Your task to perform on an android device: turn on data saver in the chrome app Image 0: 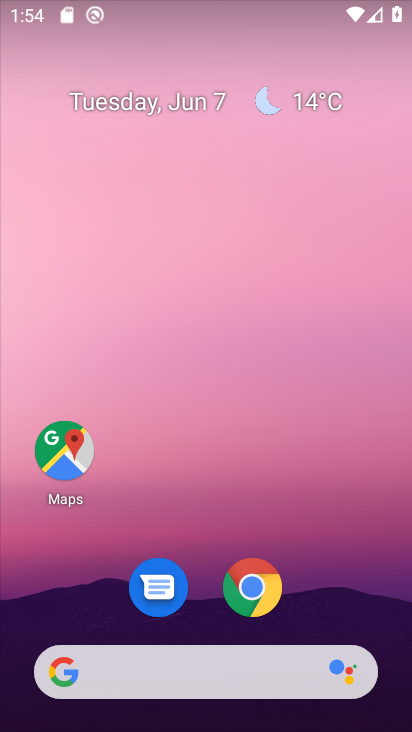
Step 0: click (266, 603)
Your task to perform on an android device: turn on data saver in the chrome app Image 1: 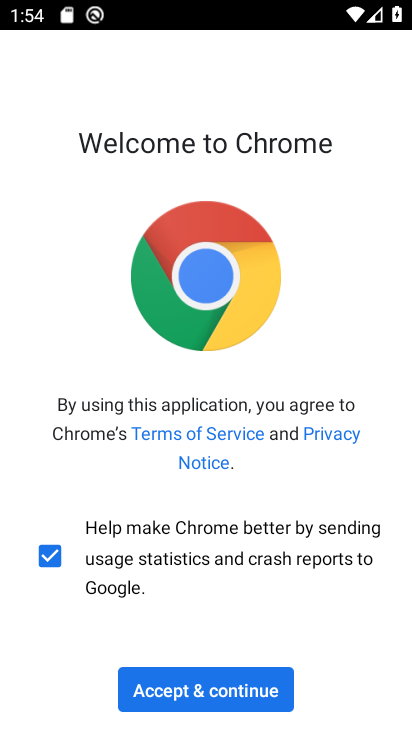
Step 1: click (274, 699)
Your task to perform on an android device: turn on data saver in the chrome app Image 2: 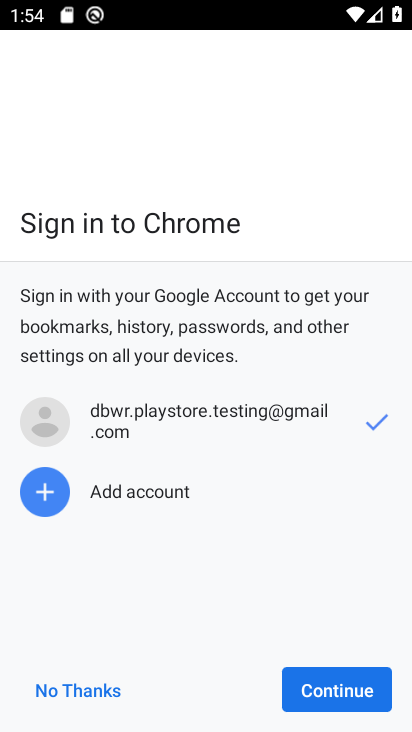
Step 2: click (313, 698)
Your task to perform on an android device: turn on data saver in the chrome app Image 3: 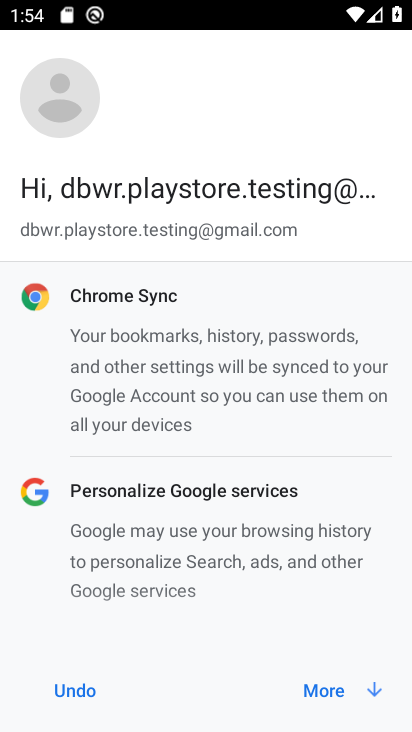
Step 3: click (363, 702)
Your task to perform on an android device: turn on data saver in the chrome app Image 4: 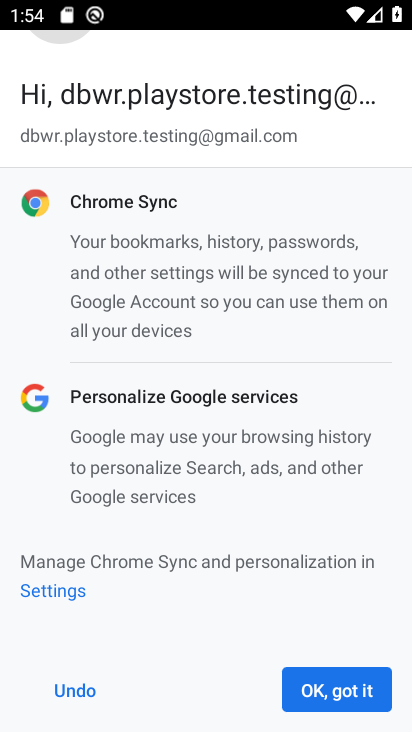
Step 4: click (328, 695)
Your task to perform on an android device: turn on data saver in the chrome app Image 5: 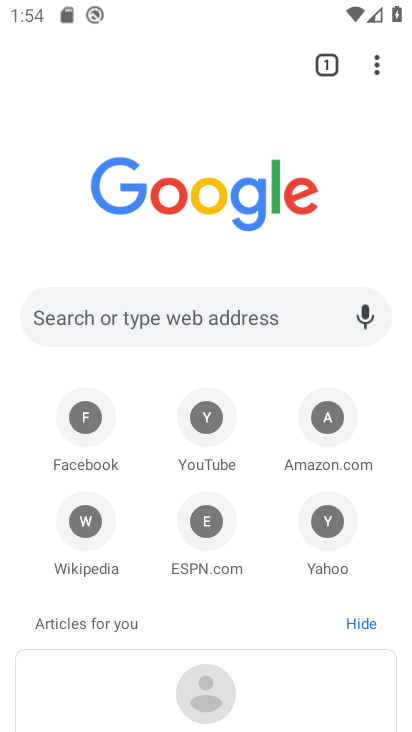
Step 5: drag from (379, 63) to (174, 546)
Your task to perform on an android device: turn on data saver in the chrome app Image 6: 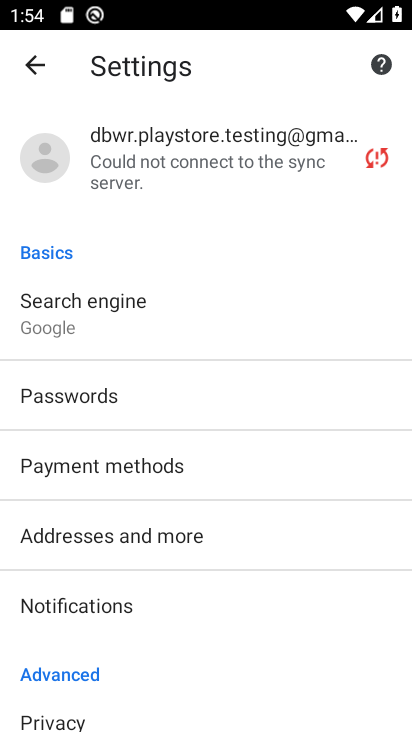
Step 6: drag from (207, 647) to (366, 69)
Your task to perform on an android device: turn on data saver in the chrome app Image 7: 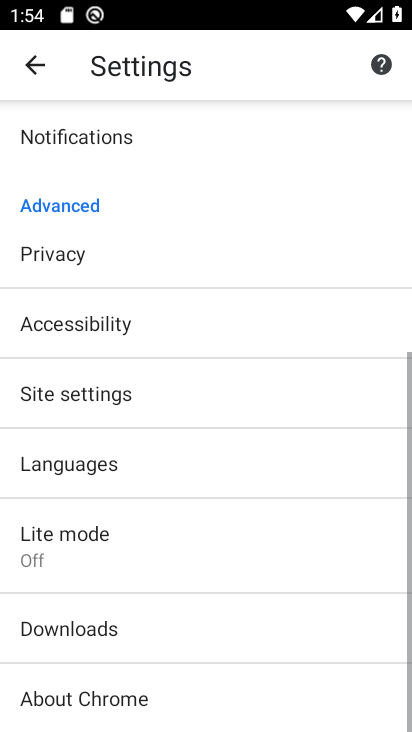
Step 7: click (160, 525)
Your task to perform on an android device: turn on data saver in the chrome app Image 8: 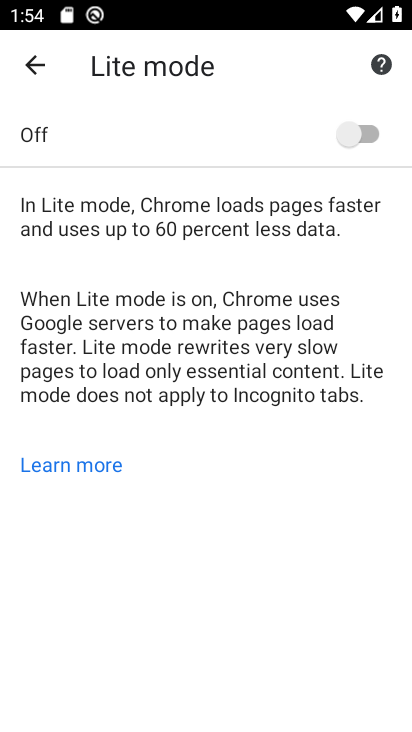
Step 8: click (335, 140)
Your task to perform on an android device: turn on data saver in the chrome app Image 9: 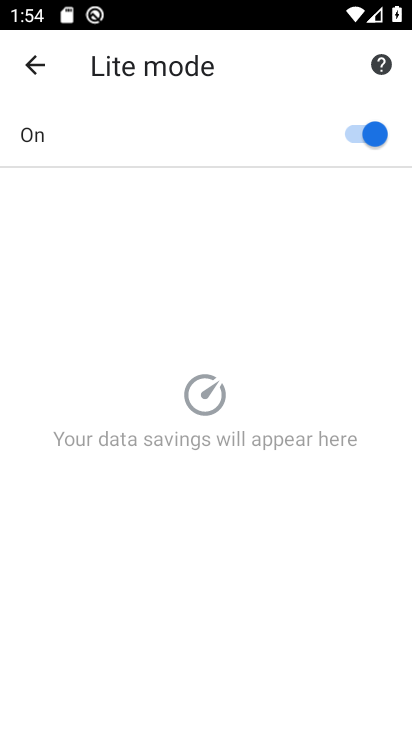
Step 9: task complete